Your task to perform on an android device: Check the weather Image 0: 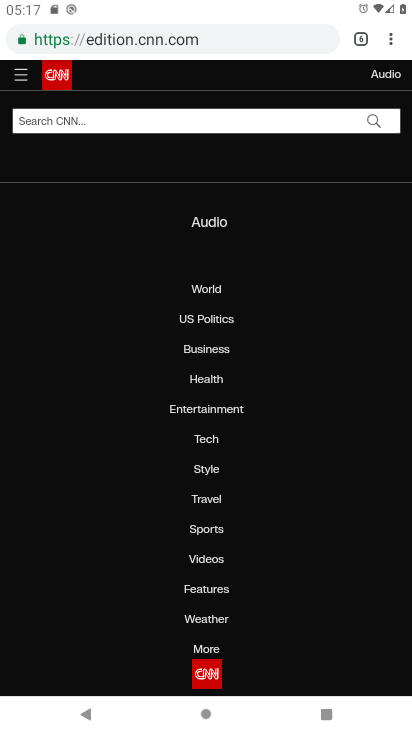
Step 0: press home button
Your task to perform on an android device: Check the weather Image 1: 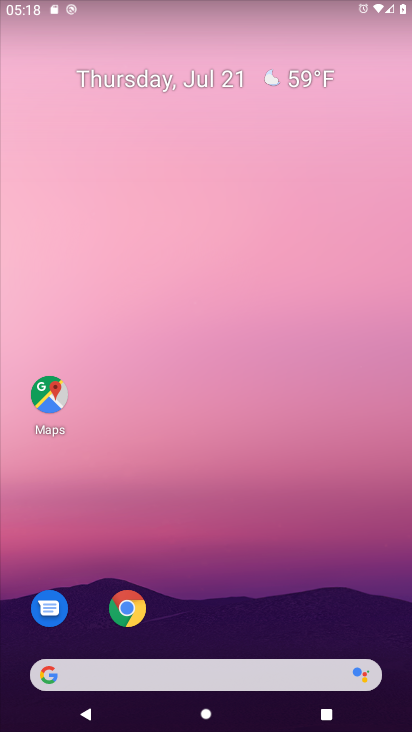
Step 1: drag from (289, 654) to (361, 65)
Your task to perform on an android device: Check the weather Image 2: 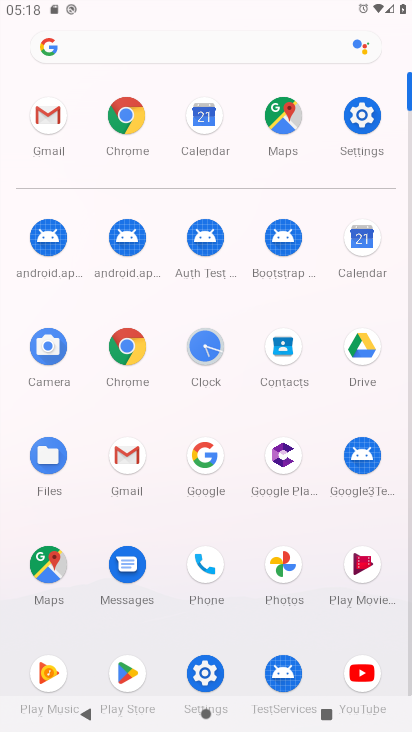
Step 2: click (129, 348)
Your task to perform on an android device: Check the weather Image 3: 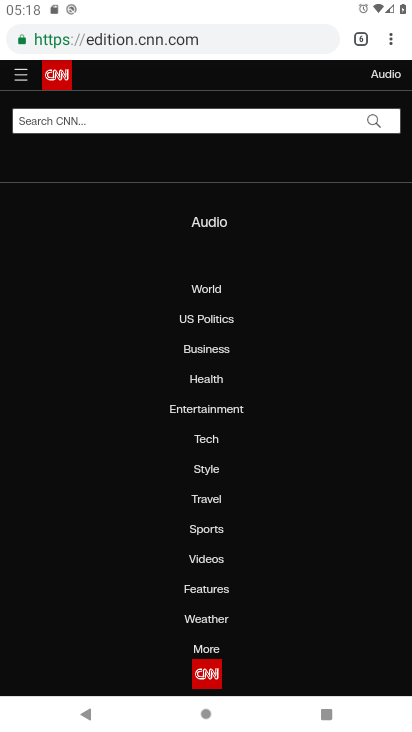
Step 3: click (229, 37)
Your task to perform on an android device: Check the weather Image 4: 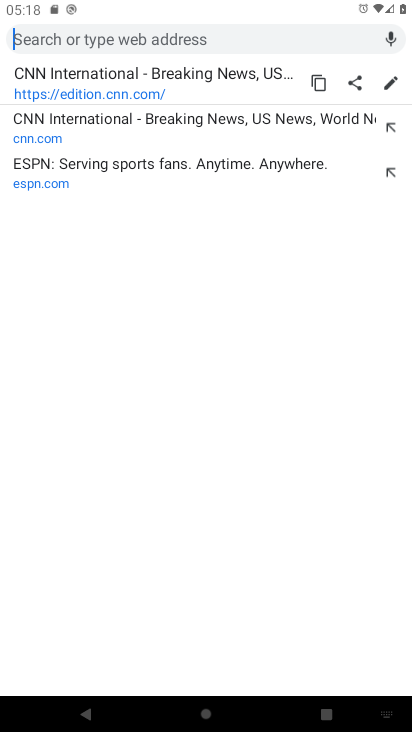
Step 4: type "check the weather"
Your task to perform on an android device: Check the weather Image 5: 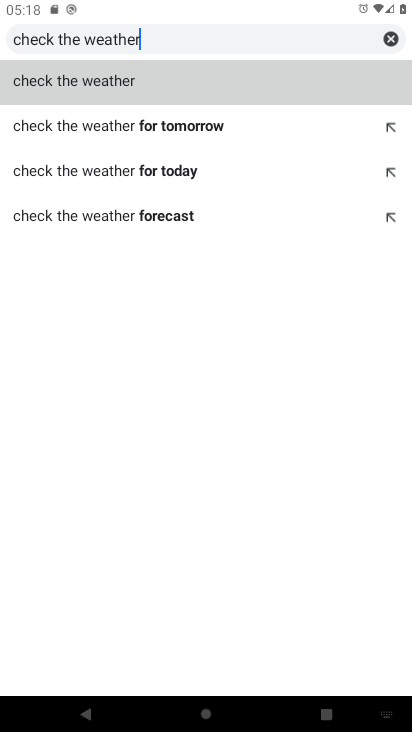
Step 5: click (58, 72)
Your task to perform on an android device: Check the weather Image 6: 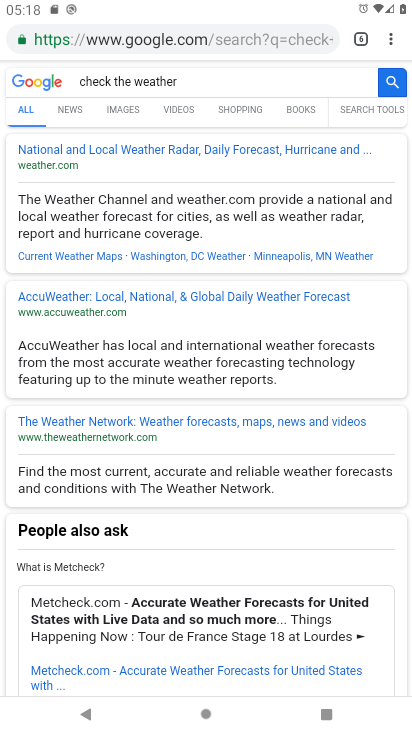
Step 6: task complete